Your task to perform on an android device: turn pop-ups off in chrome Image 0: 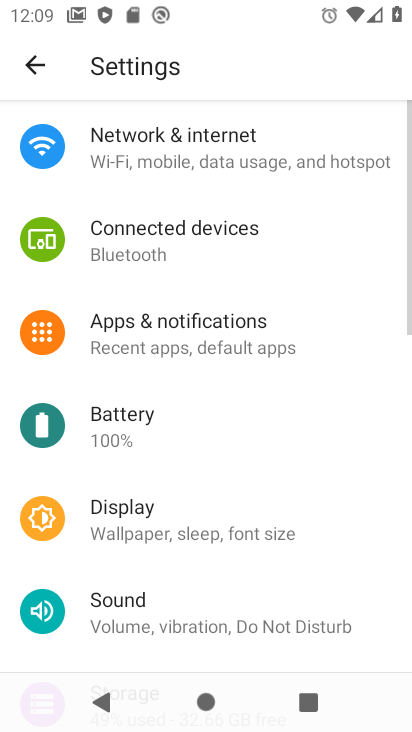
Step 0: press home button
Your task to perform on an android device: turn pop-ups off in chrome Image 1: 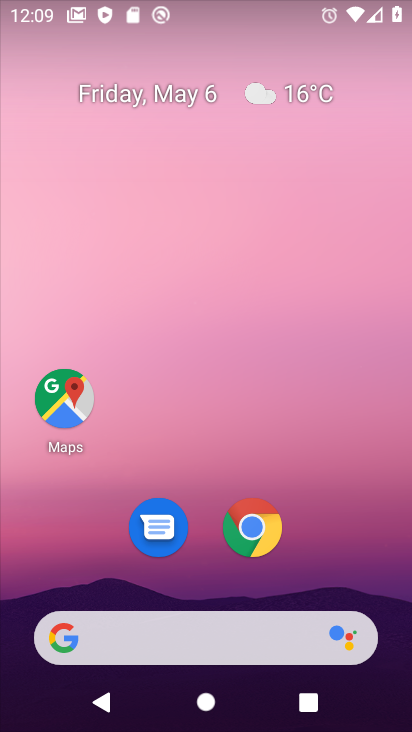
Step 1: click (254, 515)
Your task to perform on an android device: turn pop-ups off in chrome Image 2: 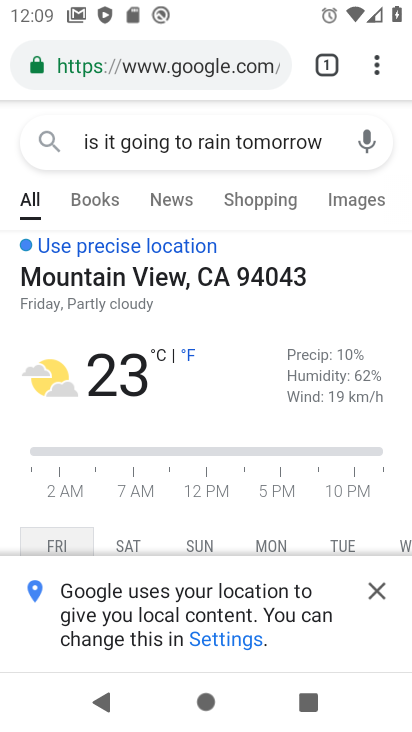
Step 2: drag from (380, 63) to (157, 576)
Your task to perform on an android device: turn pop-ups off in chrome Image 3: 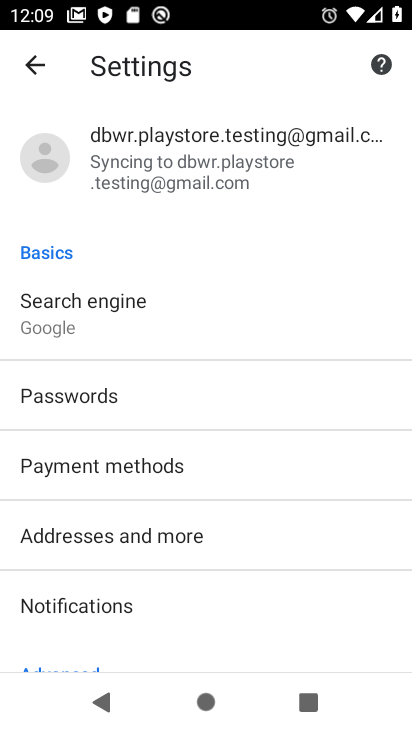
Step 3: drag from (166, 610) to (163, 233)
Your task to perform on an android device: turn pop-ups off in chrome Image 4: 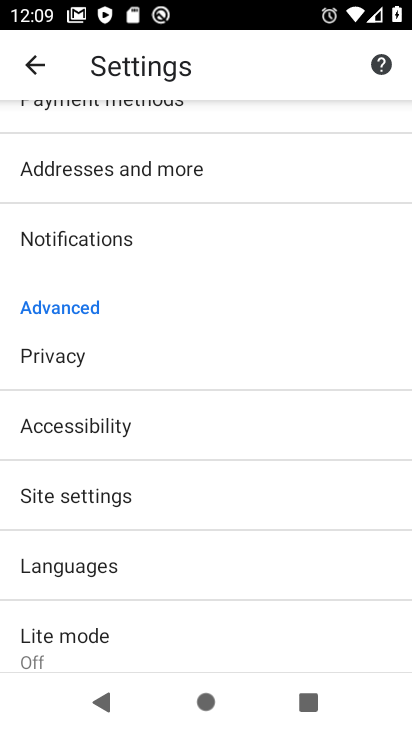
Step 4: click (78, 496)
Your task to perform on an android device: turn pop-ups off in chrome Image 5: 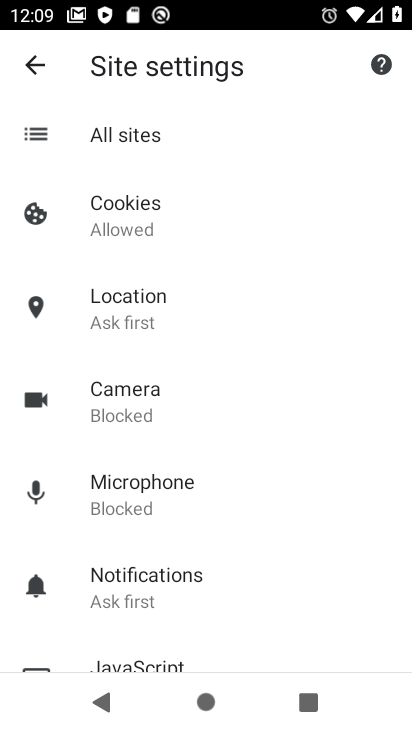
Step 5: drag from (182, 620) to (162, 248)
Your task to perform on an android device: turn pop-ups off in chrome Image 6: 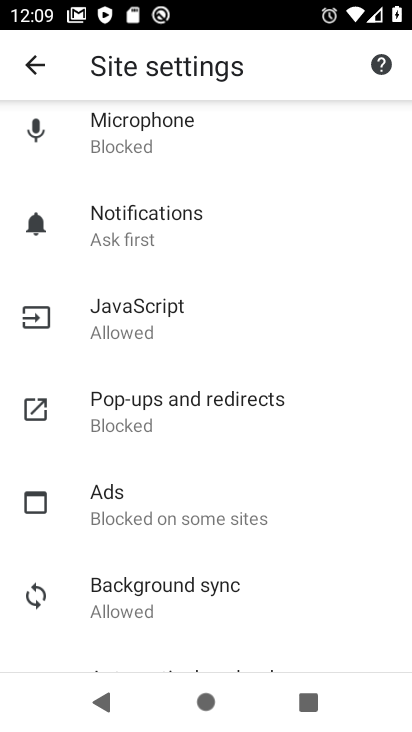
Step 6: click (144, 407)
Your task to perform on an android device: turn pop-ups off in chrome Image 7: 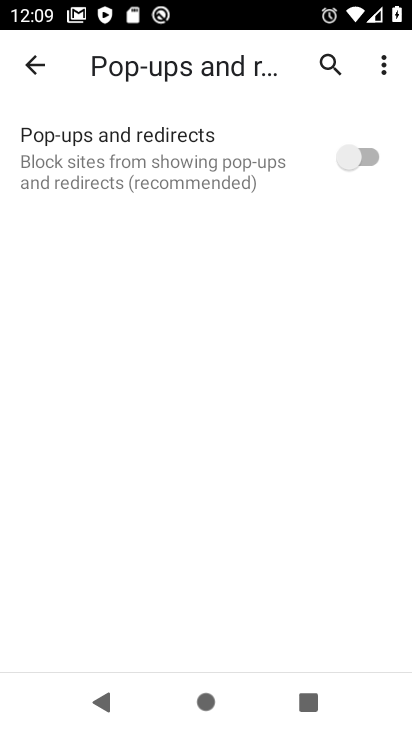
Step 7: task complete